Your task to perform on an android device: visit the assistant section in the google photos Image 0: 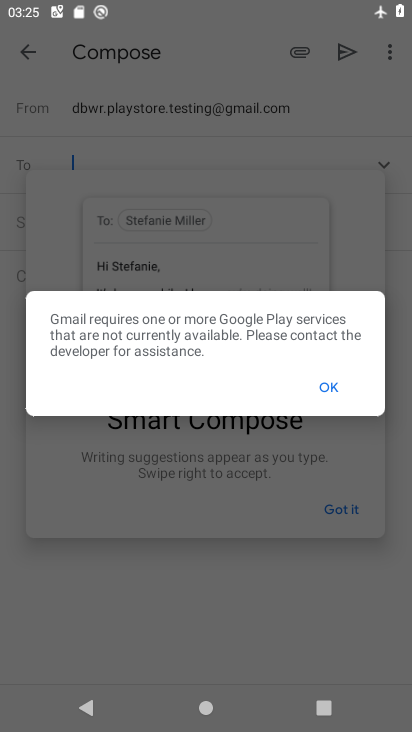
Step 0: press home button
Your task to perform on an android device: visit the assistant section in the google photos Image 1: 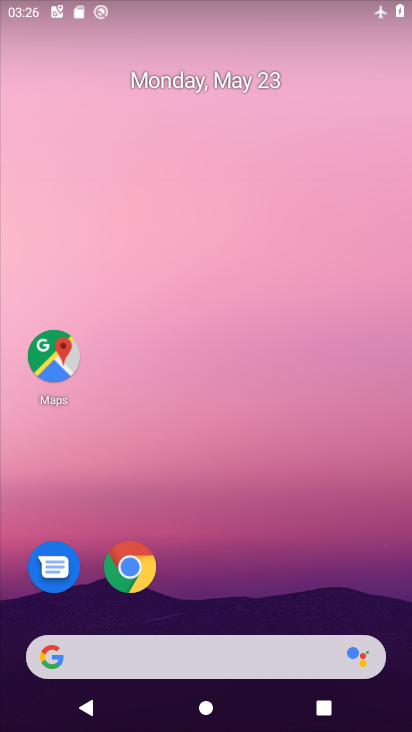
Step 1: drag from (36, 572) to (248, 175)
Your task to perform on an android device: visit the assistant section in the google photos Image 2: 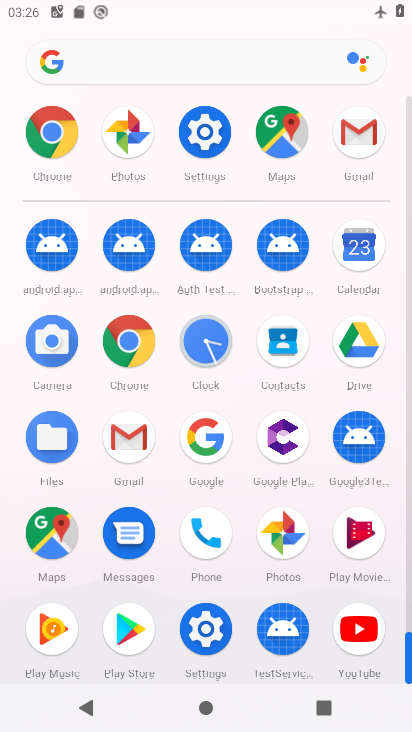
Step 2: click (288, 525)
Your task to perform on an android device: visit the assistant section in the google photos Image 3: 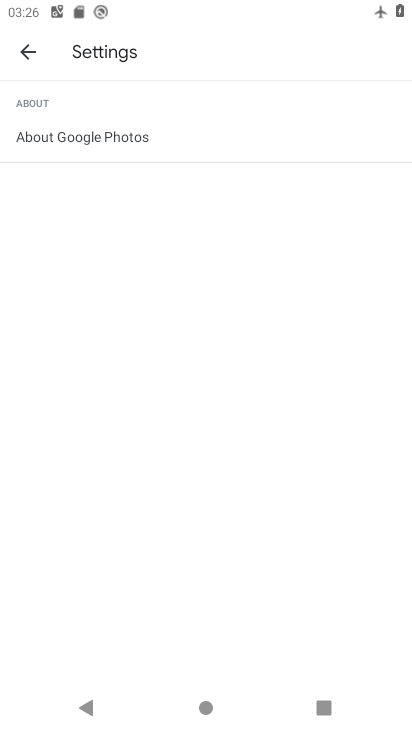
Step 3: click (29, 50)
Your task to perform on an android device: visit the assistant section in the google photos Image 4: 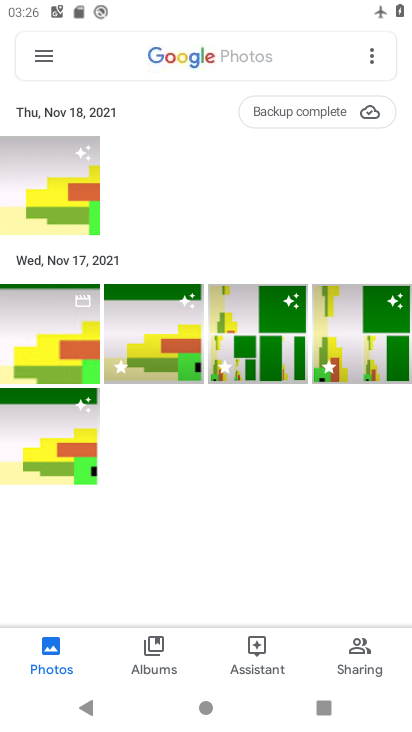
Step 4: click (251, 650)
Your task to perform on an android device: visit the assistant section in the google photos Image 5: 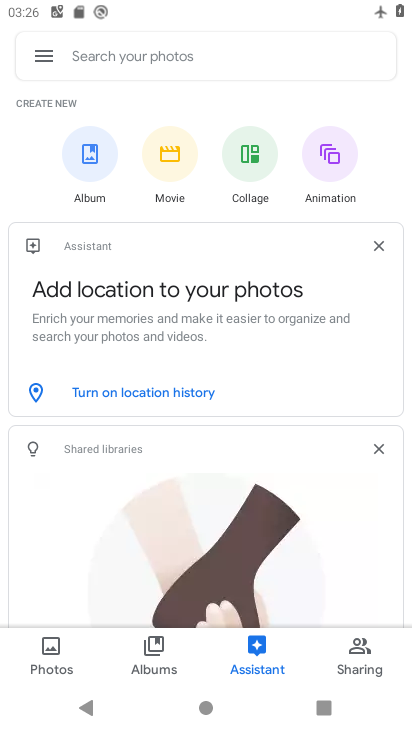
Step 5: task complete